Your task to perform on an android device: Go to Google maps Image 0: 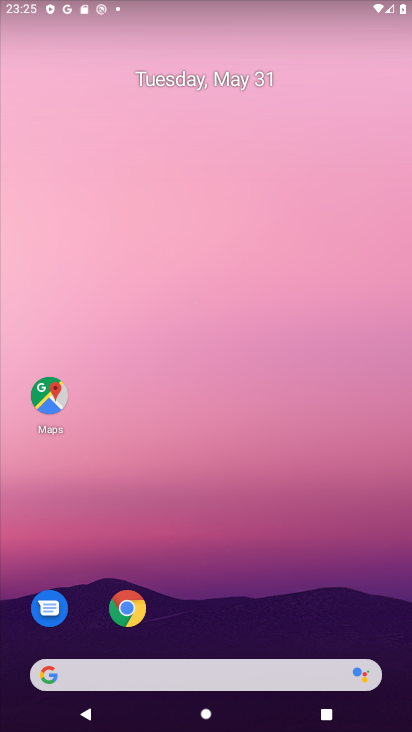
Step 0: click (53, 407)
Your task to perform on an android device: Go to Google maps Image 1: 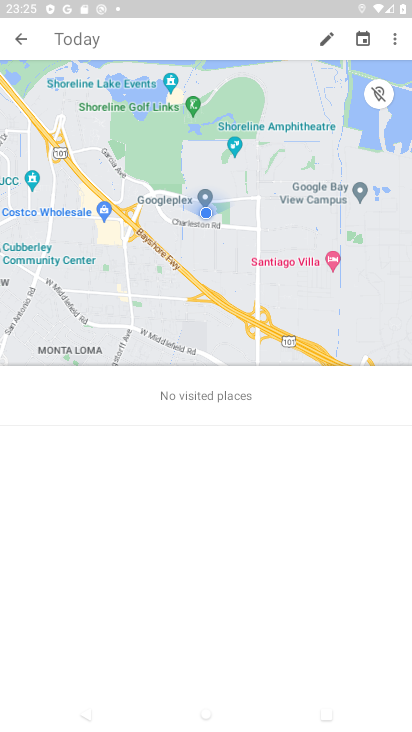
Step 1: task complete